Your task to perform on an android device: change the upload size in google photos Image 0: 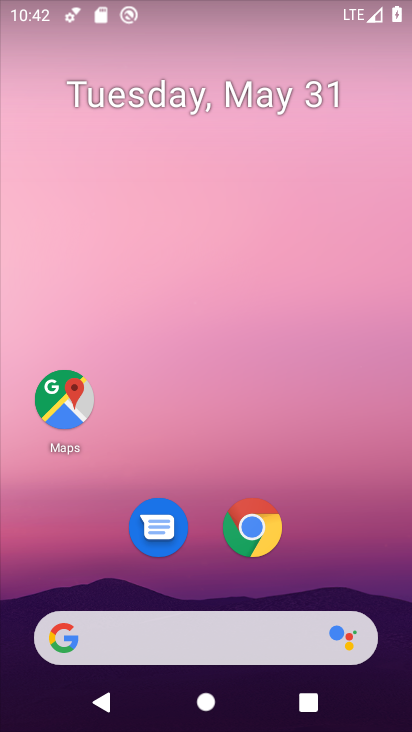
Step 0: drag from (347, 570) to (324, 6)
Your task to perform on an android device: change the upload size in google photos Image 1: 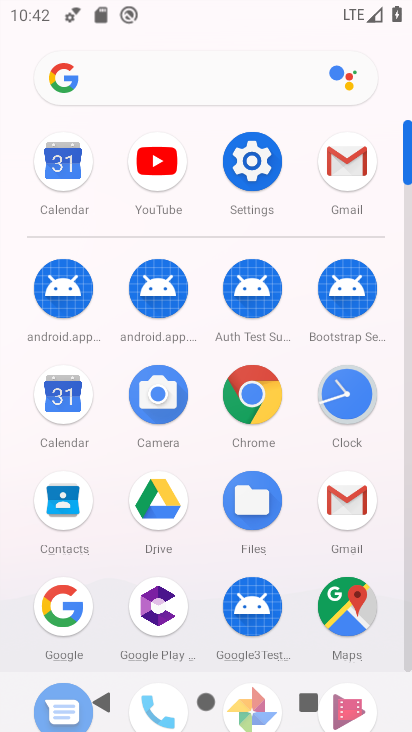
Step 1: click (410, 574)
Your task to perform on an android device: change the upload size in google photos Image 2: 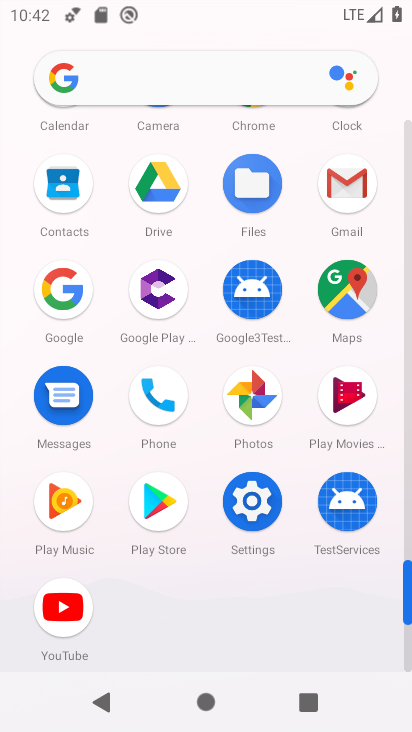
Step 2: click (257, 408)
Your task to perform on an android device: change the upload size in google photos Image 3: 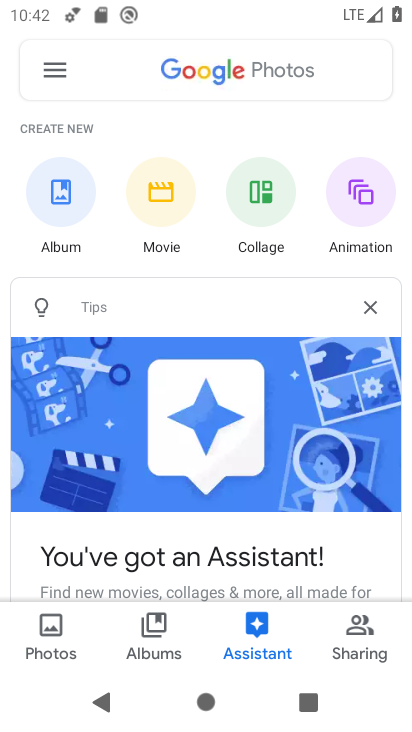
Step 3: click (51, 71)
Your task to perform on an android device: change the upload size in google photos Image 4: 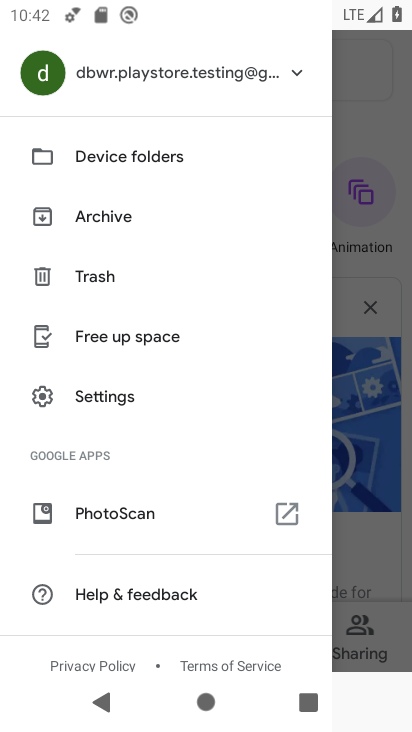
Step 4: click (96, 401)
Your task to perform on an android device: change the upload size in google photos Image 5: 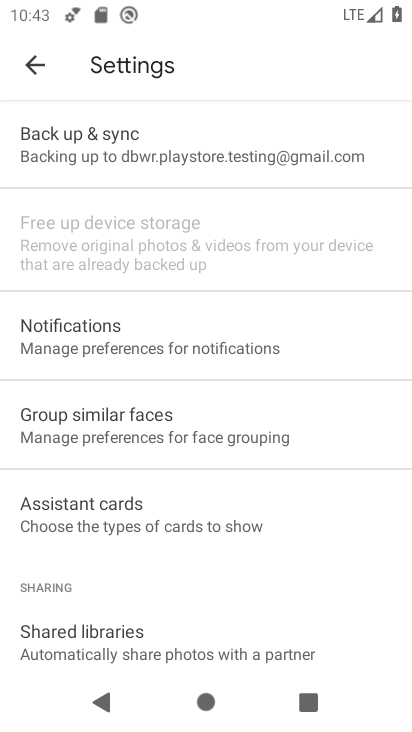
Step 5: click (83, 148)
Your task to perform on an android device: change the upload size in google photos Image 6: 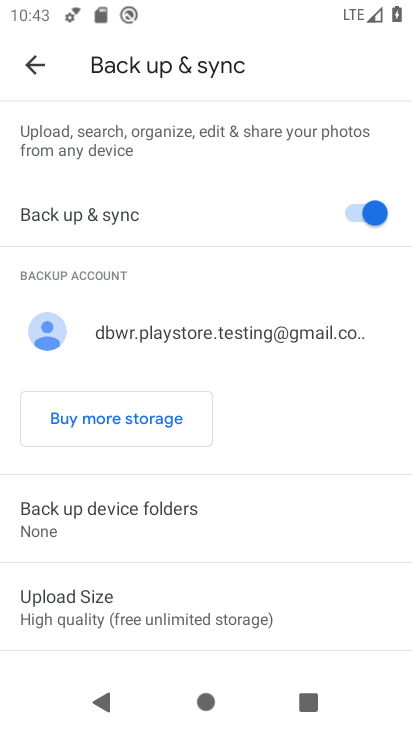
Step 6: drag from (227, 511) to (230, 298)
Your task to perform on an android device: change the upload size in google photos Image 7: 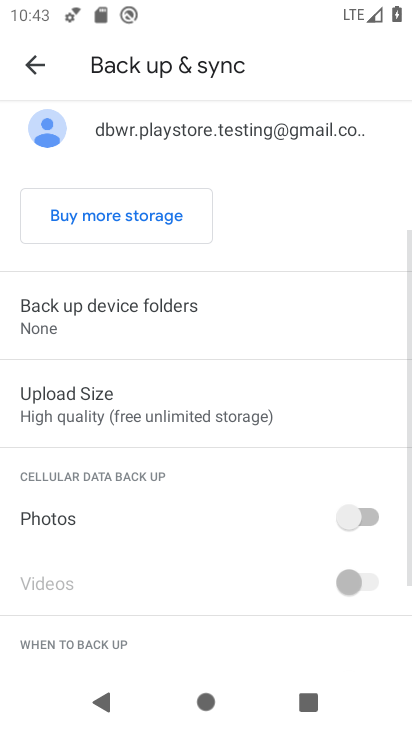
Step 7: click (96, 401)
Your task to perform on an android device: change the upload size in google photos Image 8: 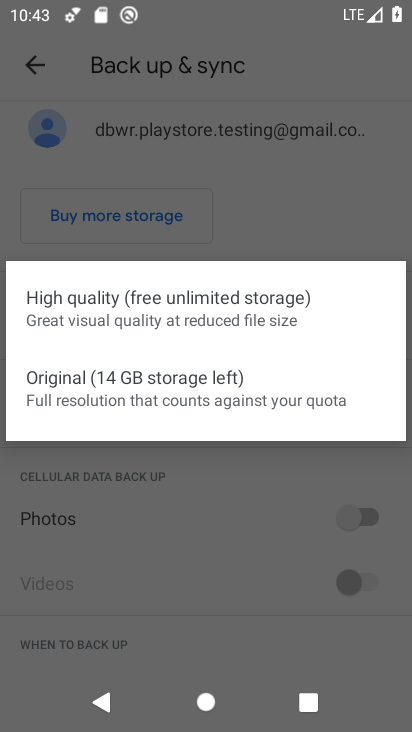
Step 8: click (96, 401)
Your task to perform on an android device: change the upload size in google photos Image 9: 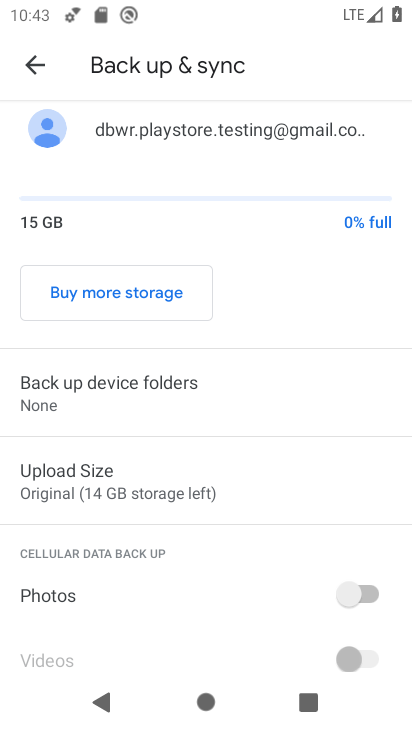
Step 9: task complete